Your task to perform on an android device: change the clock style Image 0: 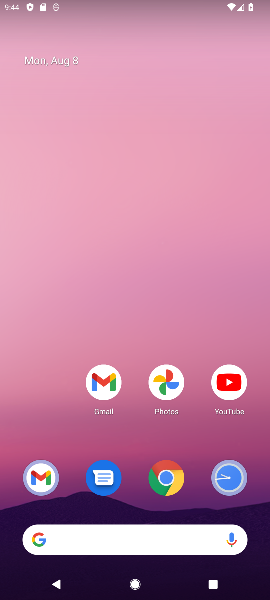
Step 0: drag from (122, 506) to (258, 268)
Your task to perform on an android device: change the clock style Image 1: 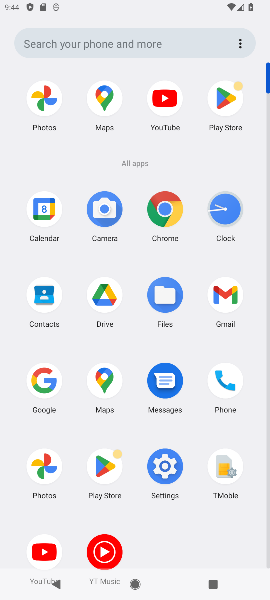
Step 1: click (222, 218)
Your task to perform on an android device: change the clock style Image 2: 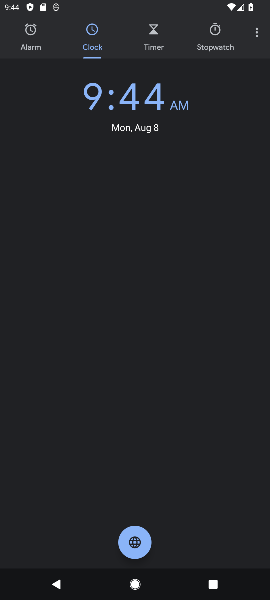
Step 2: click (257, 37)
Your task to perform on an android device: change the clock style Image 3: 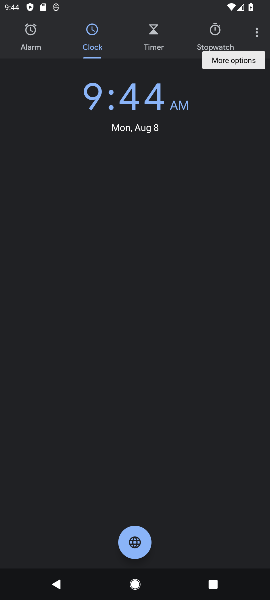
Step 3: click (252, 34)
Your task to perform on an android device: change the clock style Image 4: 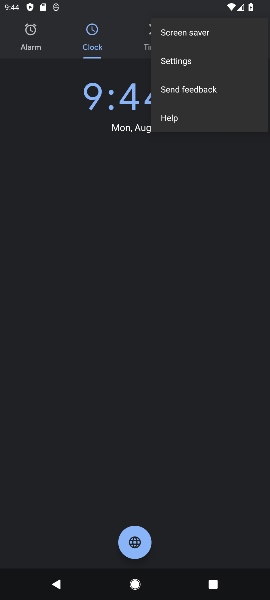
Step 4: click (200, 69)
Your task to perform on an android device: change the clock style Image 5: 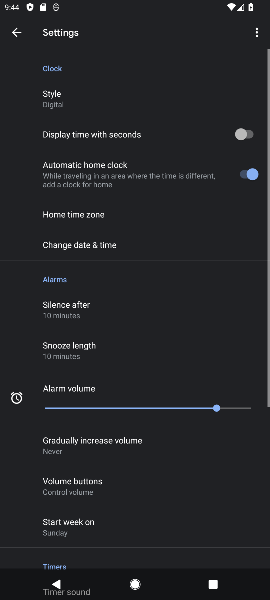
Step 5: click (55, 98)
Your task to perform on an android device: change the clock style Image 6: 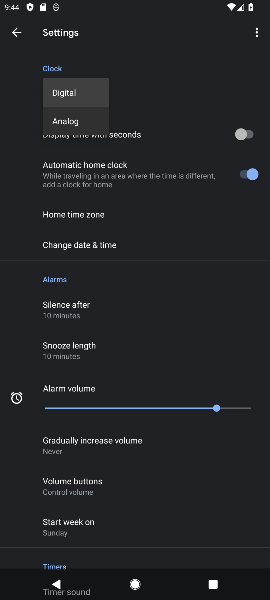
Step 6: click (69, 118)
Your task to perform on an android device: change the clock style Image 7: 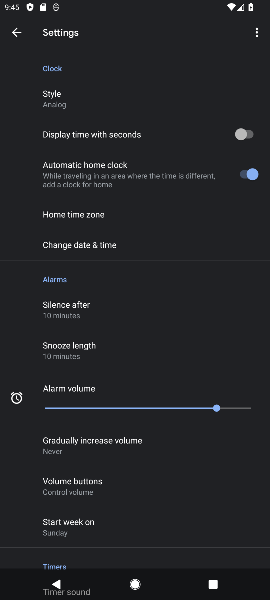
Step 7: task complete